Your task to perform on an android device: Go to Reddit.com Image 0: 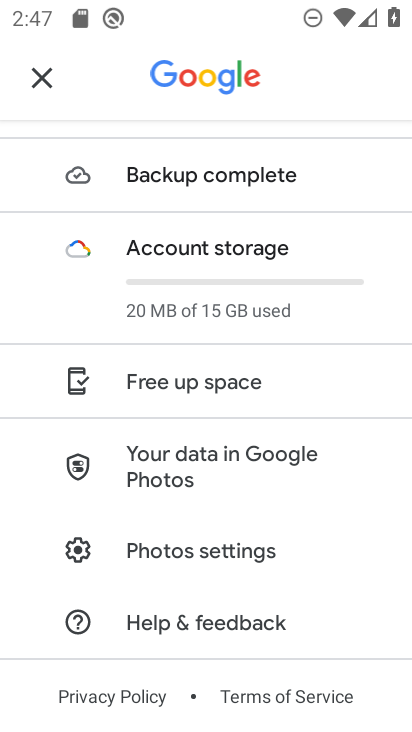
Step 0: press home button
Your task to perform on an android device: Go to Reddit.com Image 1: 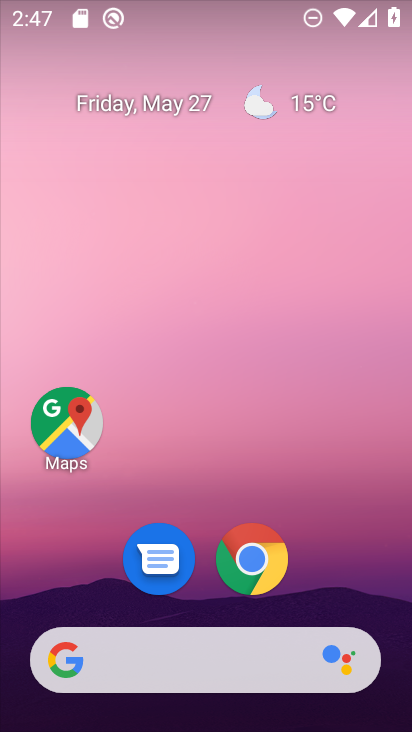
Step 1: drag from (244, 655) to (259, 25)
Your task to perform on an android device: Go to Reddit.com Image 2: 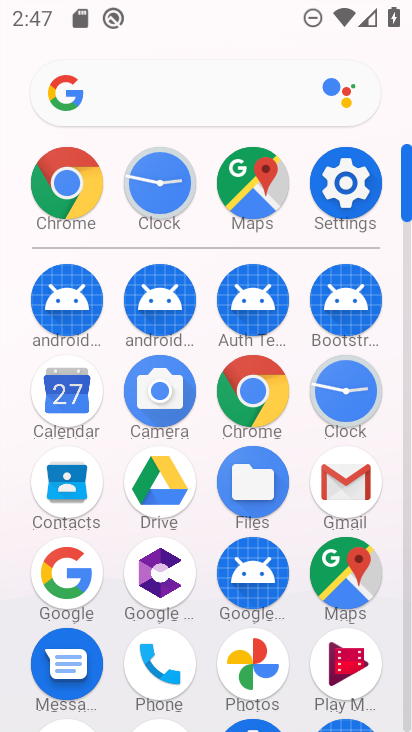
Step 2: click (261, 375)
Your task to perform on an android device: Go to Reddit.com Image 3: 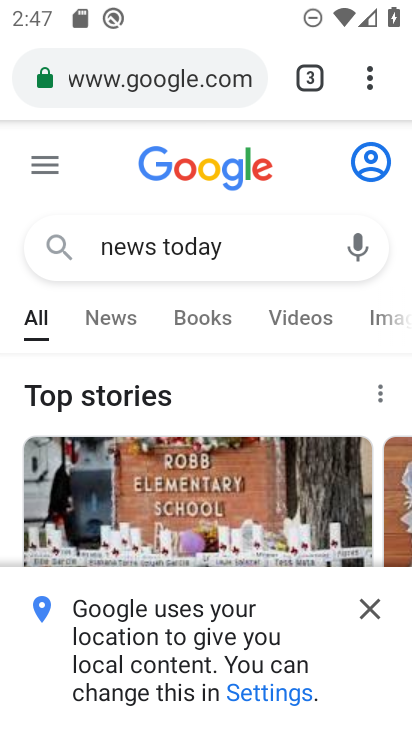
Step 3: click (156, 87)
Your task to perform on an android device: Go to Reddit.com Image 4: 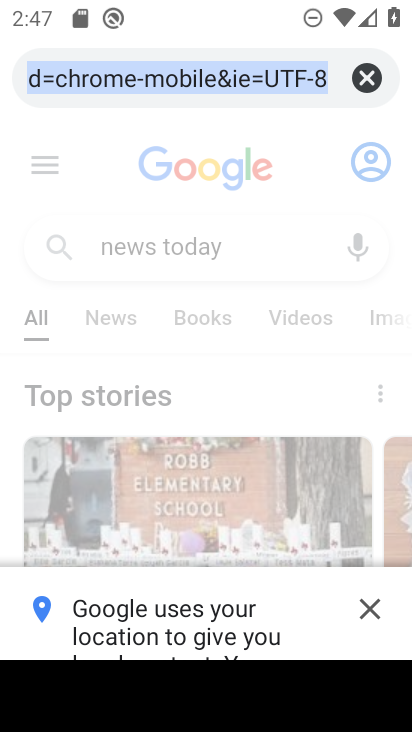
Step 4: click (361, 75)
Your task to perform on an android device: Go to Reddit.com Image 5: 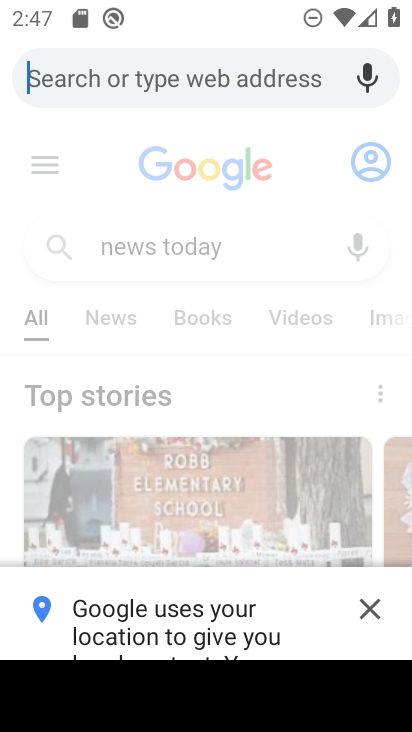
Step 5: type "reddit.com"
Your task to perform on an android device: Go to Reddit.com Image 6: 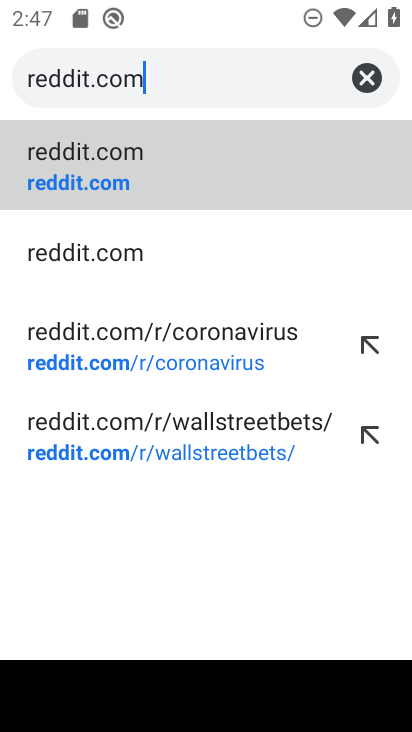
Step 6: click (85, 174)
Your task to perform on an android device: Go to Reddit.com Image 7: 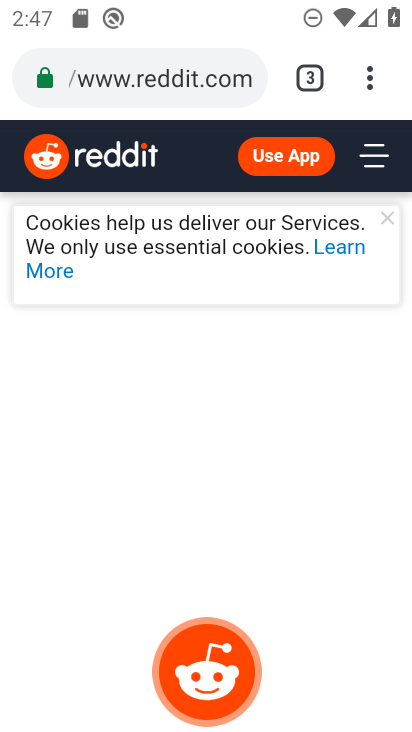
Step 7: task complete